Your task to perform on an android device: turn on translation in the chrome app Image 0: 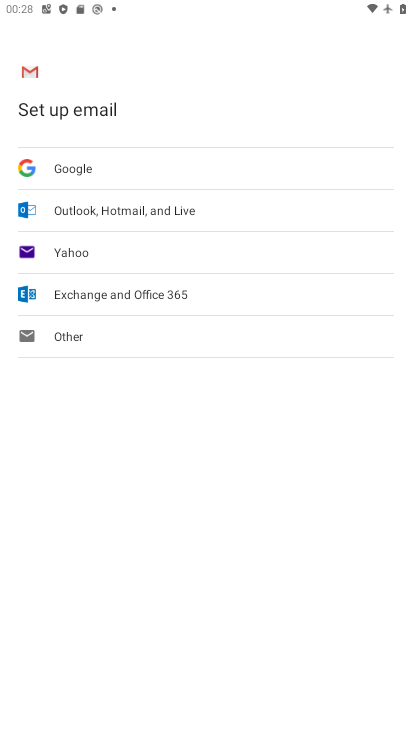
Step 0: press home button
Your task to perform on an android device: turn on translation in the chrome app Image 1: 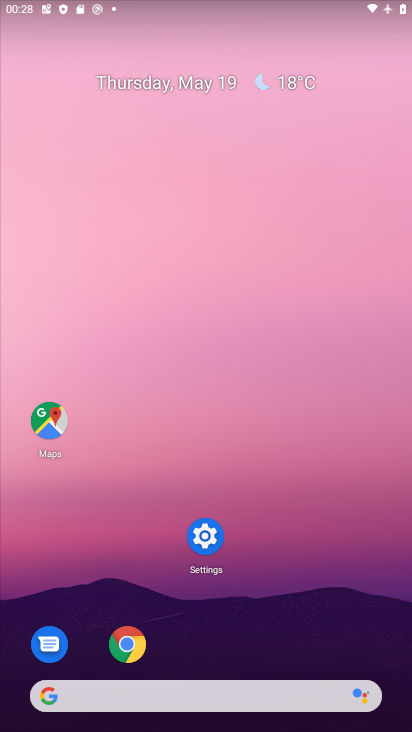
Step 1: click (121, 640)
Your task to perform on an android device: turn on translation in the chrome app Image 2: 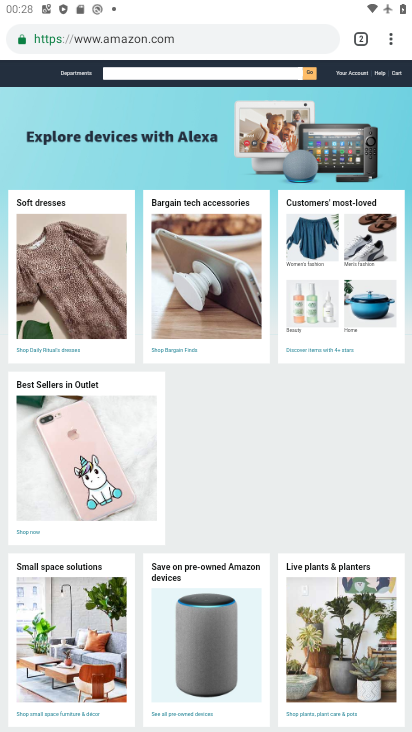
Step 2: drag from (384, 36) to (235, 472)
Your task to perform on an android device: turn on translation in the chrome app Image 3: 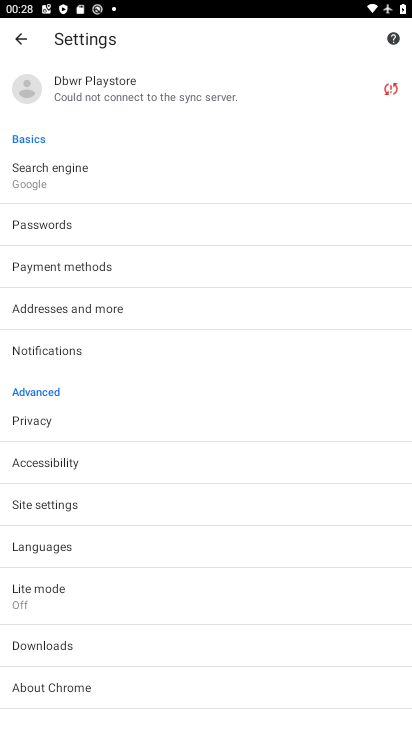
Step 3: click (61, 551)
Your task to perform on an android device: turn on translation in the chrome app Image 4: 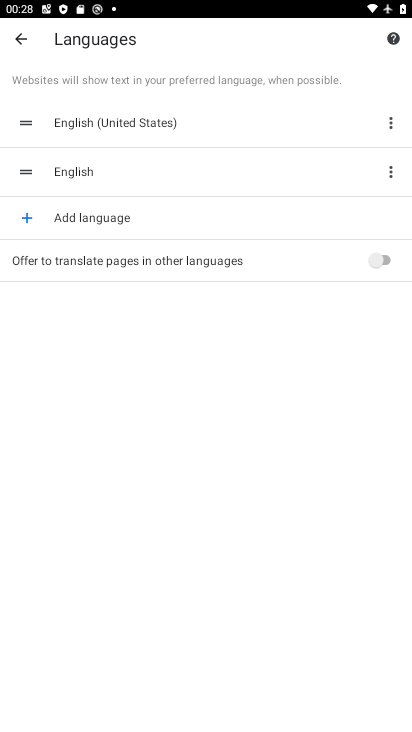
Step 4: click (365, 255)
Your task to perform on an android device: turn on translation in the chrome app Image 5: 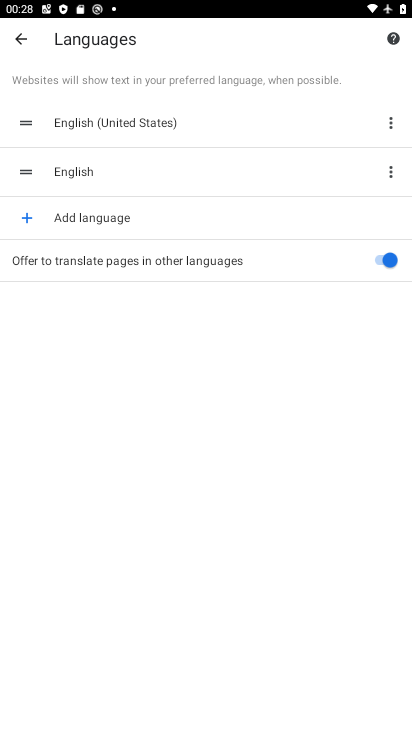
Step 5: task complete